Your task to perform on an android device: change the upload size in google photos Image 0: 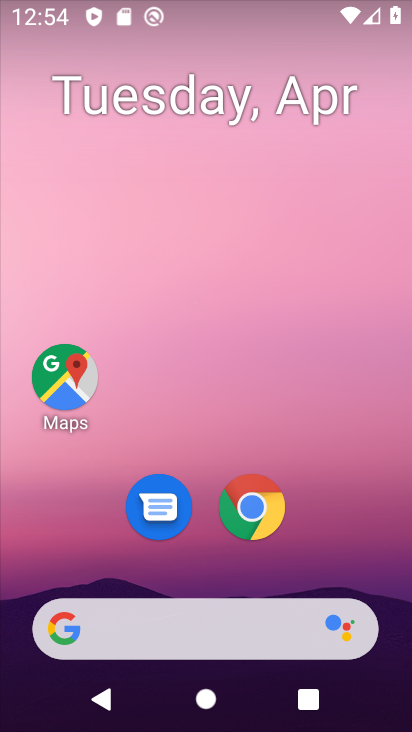
Step 0: press back button
Your task to perform on an android device: change the upload size in google photos Image 1: 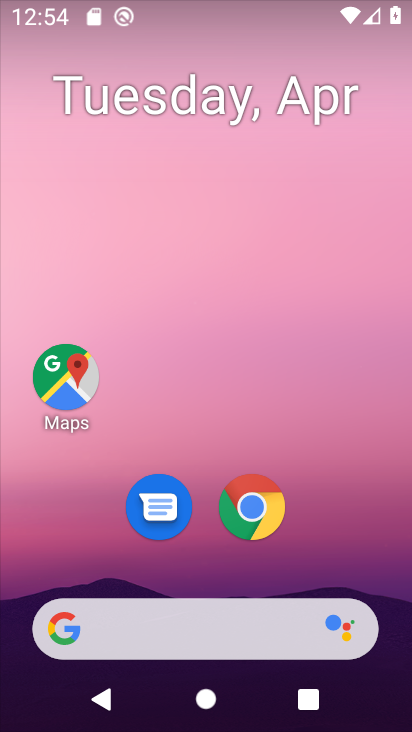
Step 1: drag from (371, 517) to (361, 97)
Your task to perform on an android device: change the upload size in google photos Image 2: 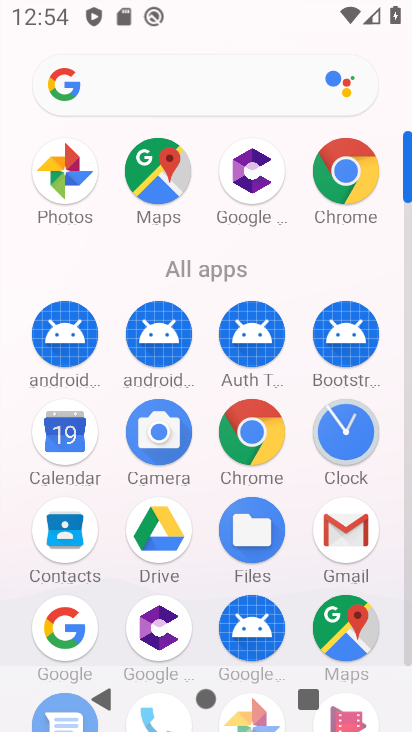
Step 2: click (408, 580)
Your task to perform on an android device: change the upload size in google photos Image 3: 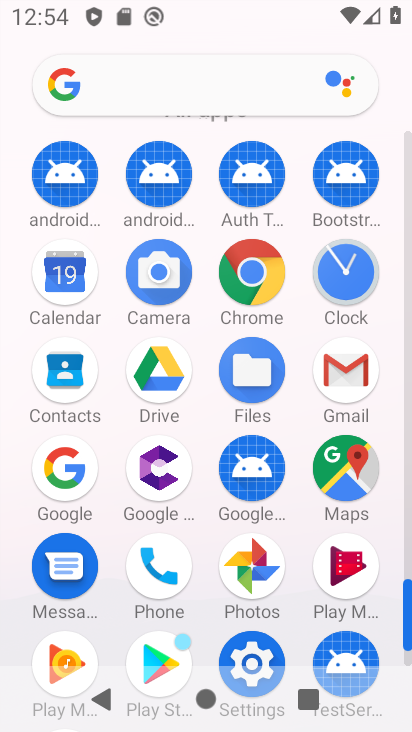
Step 3: click (238, 565)
Your task to perform on an android device: change the upload size in google photos Image 4: 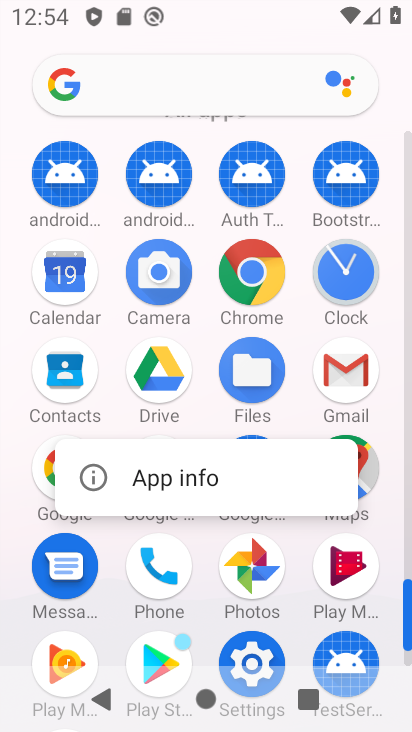
Step 4: click (238, 565)
Your task to perform on an android device: change the upload size in google photos Image 5: 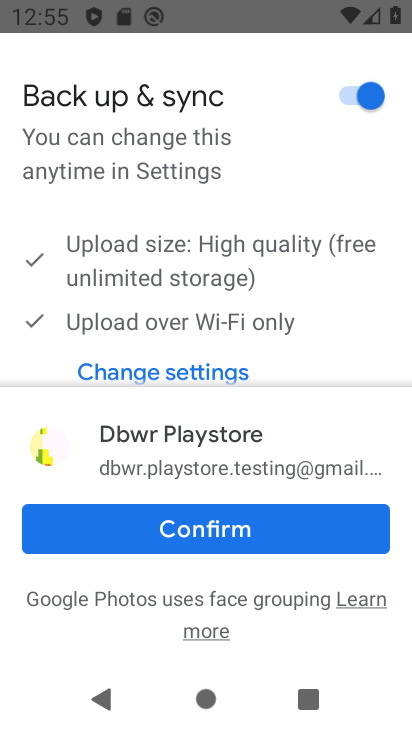
Step 5: click (228, 548)
Your task to perform on an android device: change the upload size in google photos Image 6: 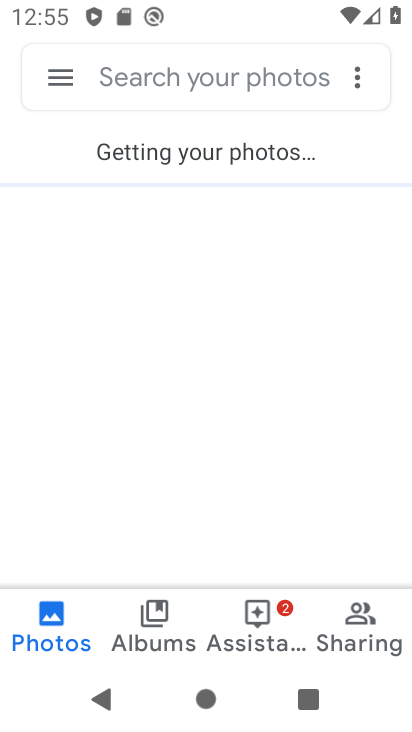
Step 6: click (59, 71)
Your task to perform on an android device: change the upload size in google photos Image 7: 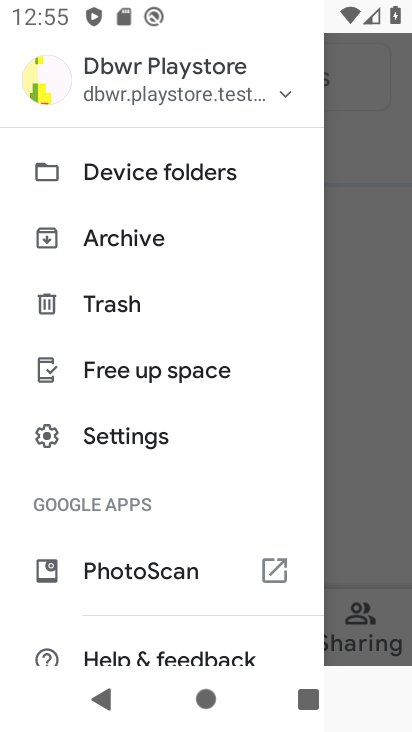
Step 7: click (145, 447)
Your task to perform on an android device: change the upload size in google photos Image 8: 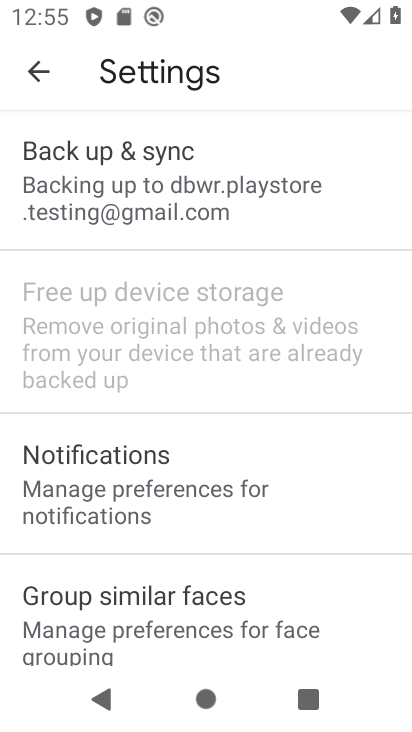
Step 8: click (205, 170)
Your task to perform on an android device: change the upload size in google photos Image 9: 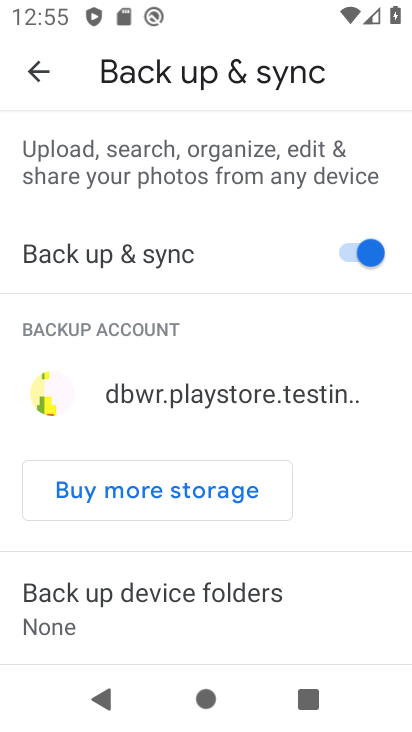
Step 9: click (35, 68)
Your task to perform on an android device: change the upload size in google photos Image 10: 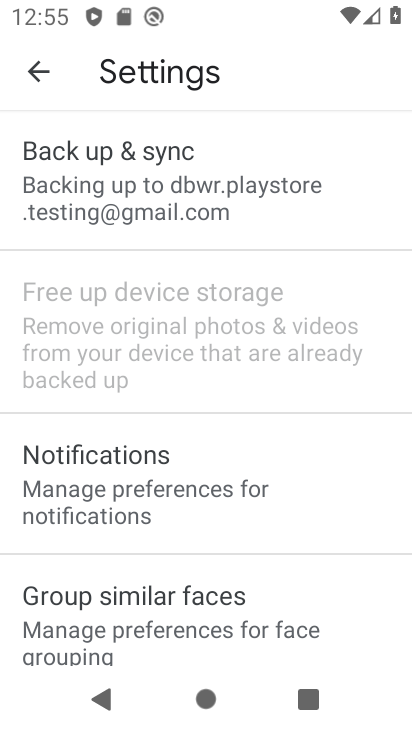
Step 10: drag from (211, 526) to (247, 195)
Your task to perform on an android device: change the upload size in google photos Image 11: 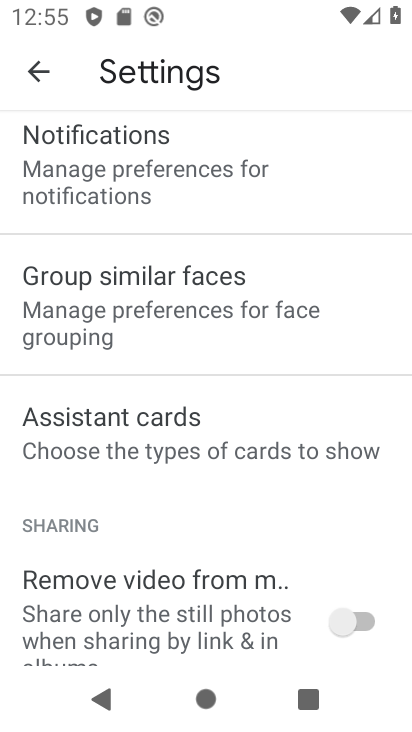
Step 11: drag from (208, 534) to (235, 248)
Your task to perform on an android device: change the upload size in google photos Image 12: 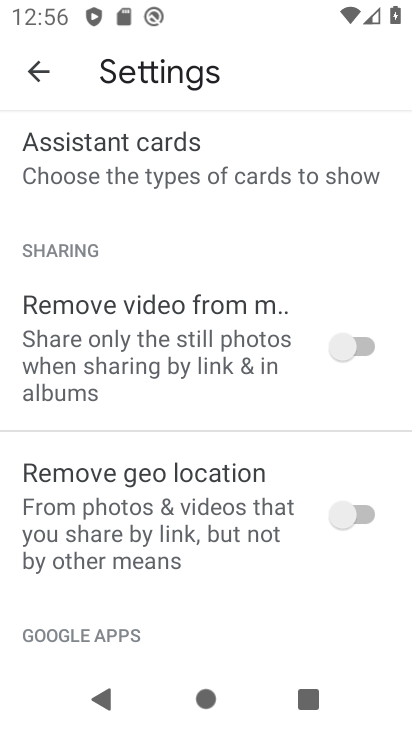
Step 12: drag from (225, 563) to (255, 195)
Your task to perform on an android device: change the upload size in google photos Image 13: 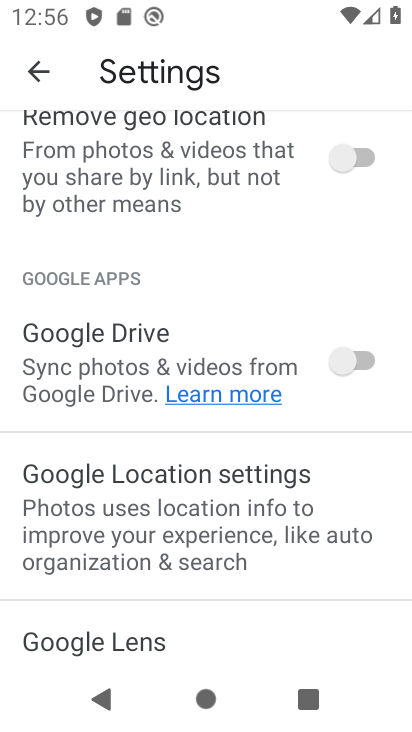
Step 13: drag from (204, 236) to (219, 714)
Your task to perform on an android device: change the upload size in google photos Image 14: 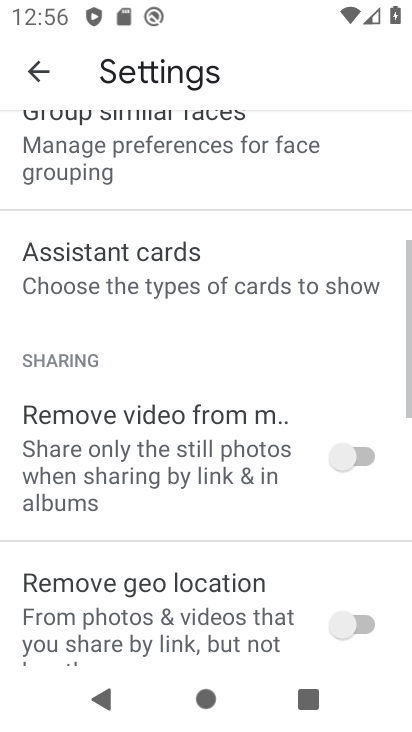
Step 14: drag from (200, 234) to (210, 470)
Your task to perform on an android device: change the upload size in google photos Image 15: 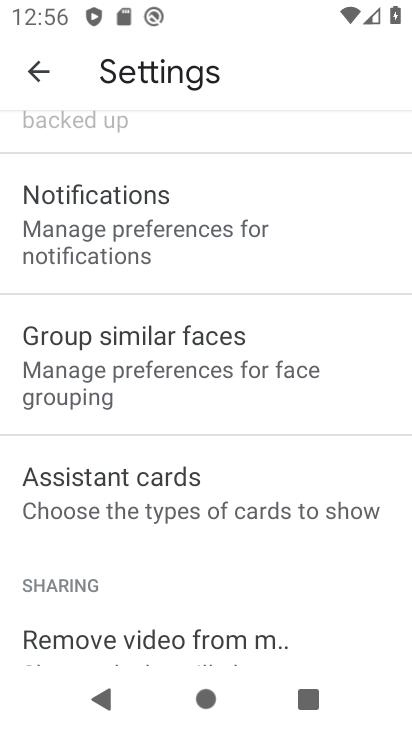
Step 15: drag from (210, 470) to (210, 517)
Your task to perform on an android device: change the upload size in google photos Image 16: 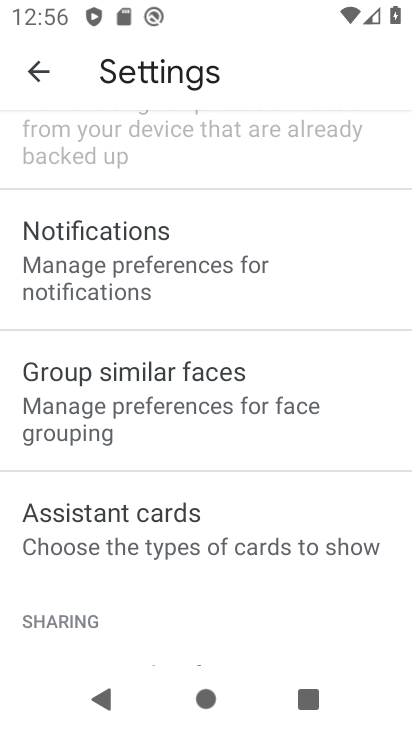
Step 16: drag from (189, 280) to (195, 711)
Your task to perform on an android device: change the upload size in google photos Image 17: 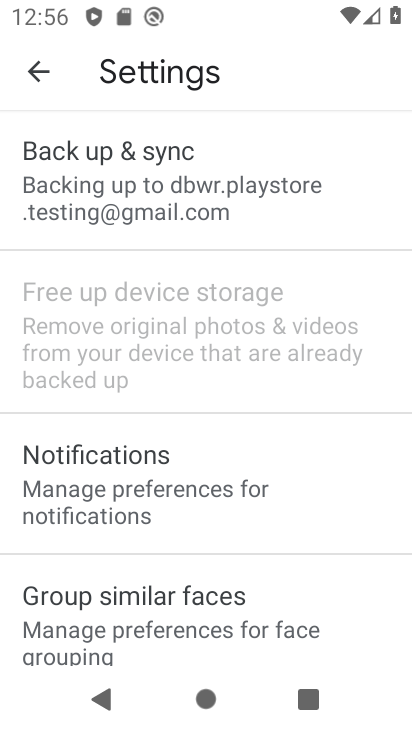
Step 17: click (192, 180)
Your task to perform on an android device: change the upload size in google photos Image 18: 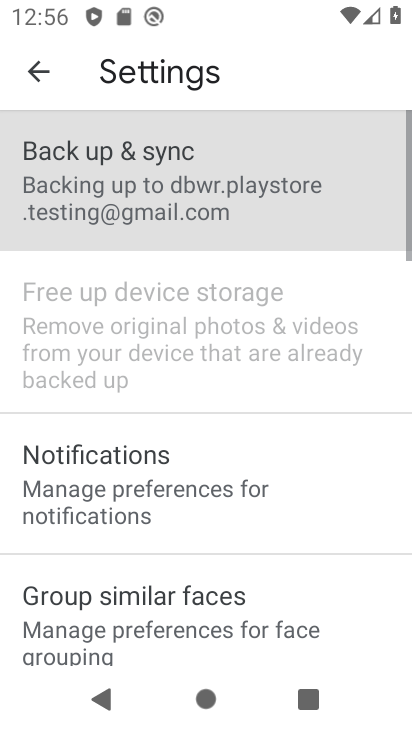
Step 18: click (192, 180)
Your task to perform on an android device: change the upload size in google photos Image 19: 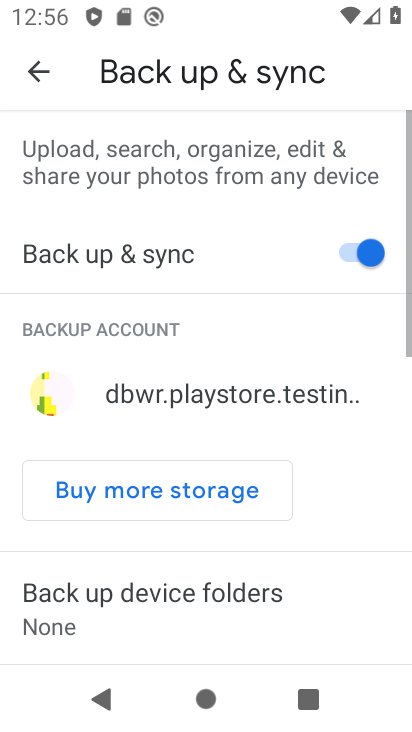
Step 19: drag from (175, 562) to (199, 233)
Your task to perform on an android device: change the upload size in google photos Image 20: 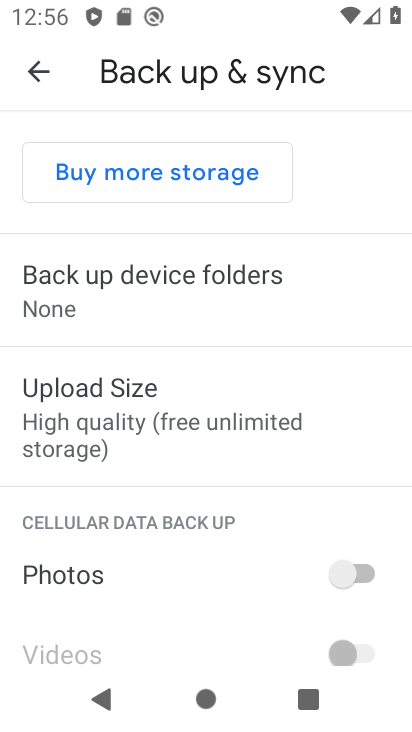
Step 20: click (124, 408)
Your task to perform on an android device: change the upload size in google photos Image 21: 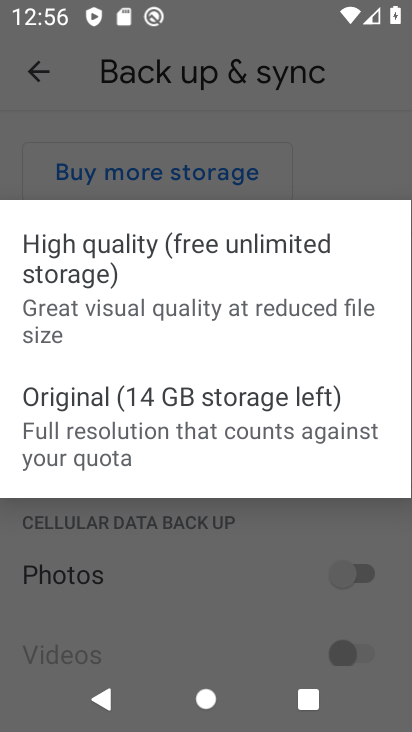
Step 21: click (217, 390)
Your task to perform on an android device: change the upload size in google photos Image 22: 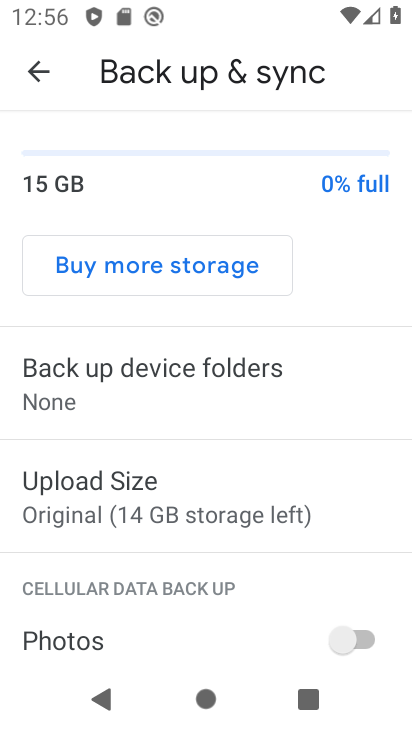
Step 22: task complete